Your task to perform on an android device: Go to battery settings Image 0: 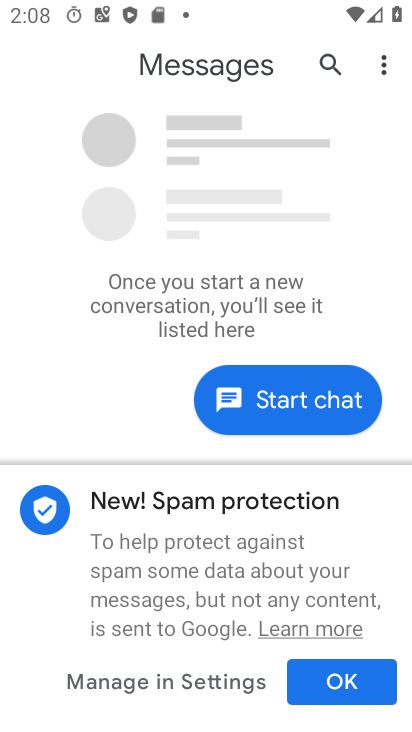
Step 0: press home button
Your task to perform on an android device: Go to battery settings Image 1: 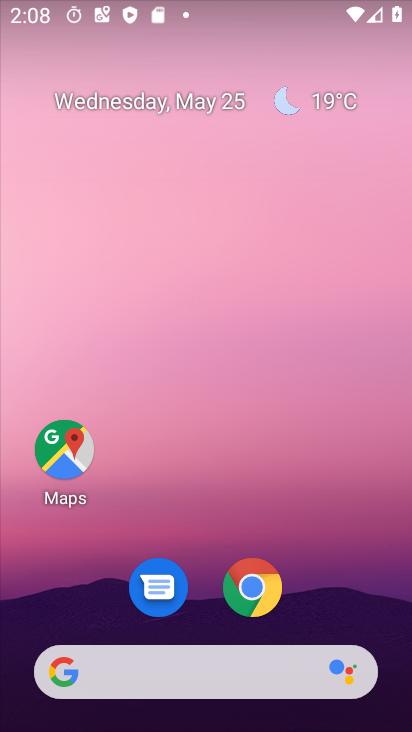
Step 1: drag from (198, 542) to (216, 82)
Your task to perform on an android device: Go to battery settings Image 2: 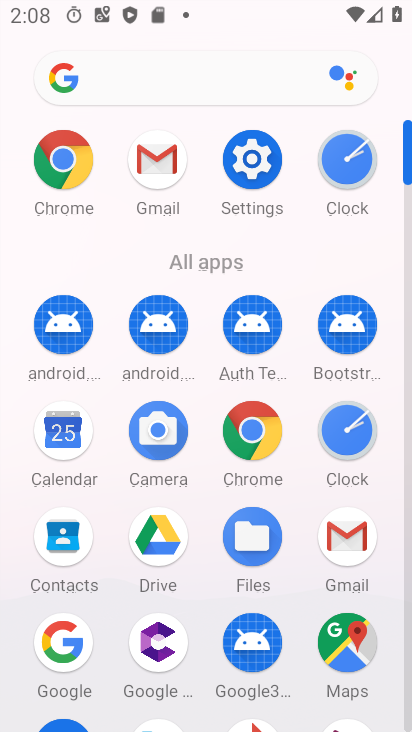
Step 2: click (251, 163)
Your task to perform on an android device: Go to battery settings Image 3: 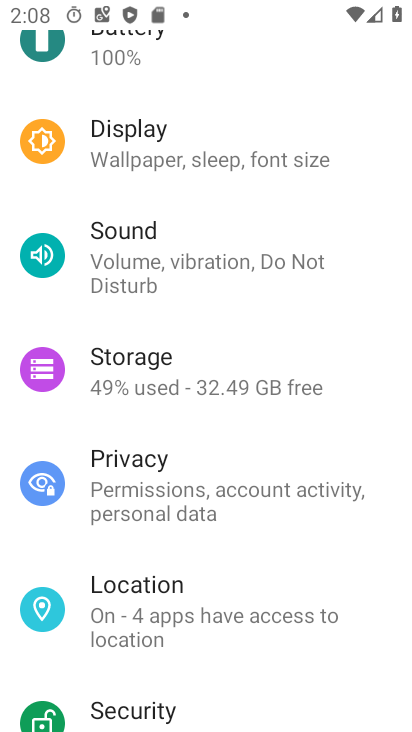
Step 3: drag from (244, 539) to (273, 162)
Your task to perform on an android device: Go to battery settings Image 4: 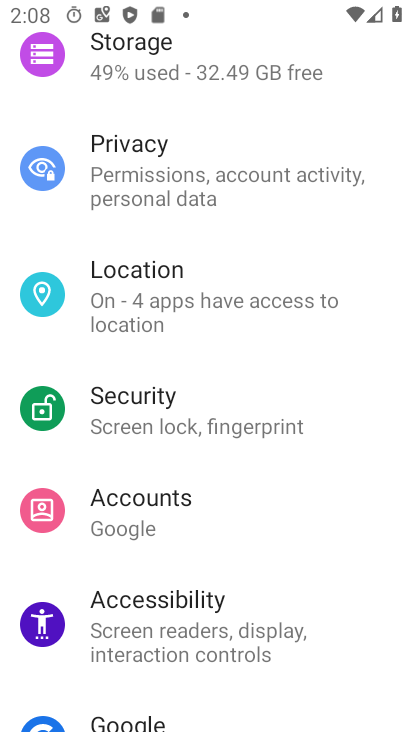
Step 4: drag from (227, 242) to (256, 580)
Your task to perform on an android device: Go to battery settings Image 5: 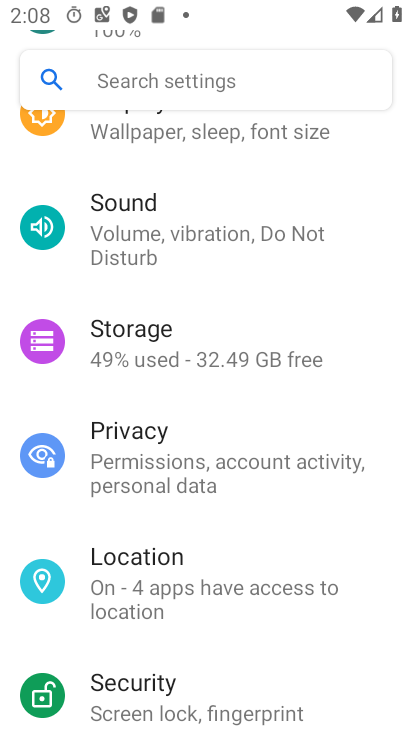
Step 5: drag from (191, 191) to (194, 473)
Your task to perform on an android device: Go to battery settings Image 6: 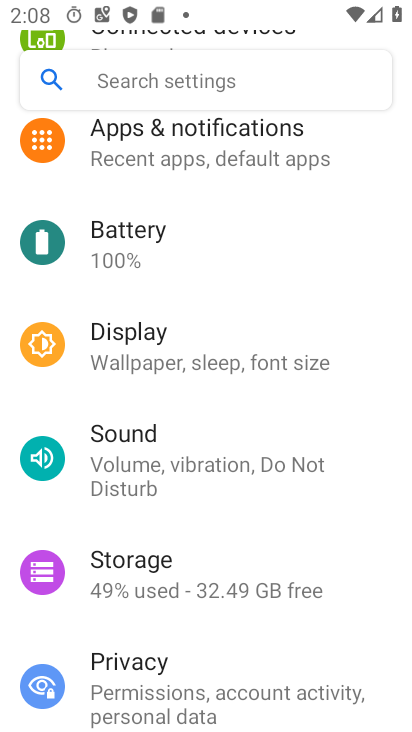
Step 6: click (166, 242)
Your task to perform on an android device: Go to battery settings Image 7: 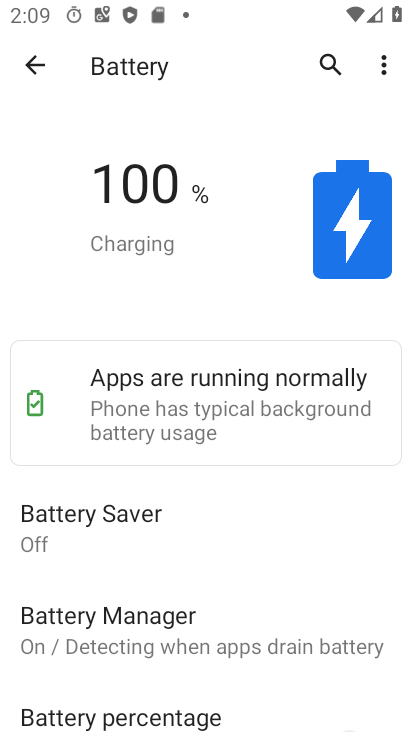
Step 7: task complete